Your task to perform on an android device: turn on showing notifications on the lock screen Image 0: 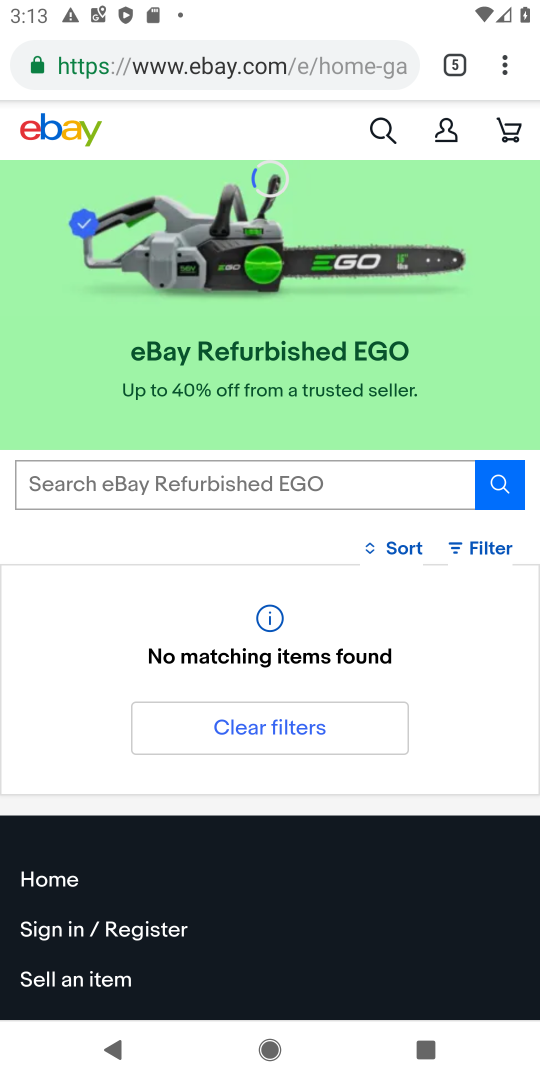
Step 0: press back button
Your task to perform on an android device: turn on showing notifications on the lock screen Image 1: 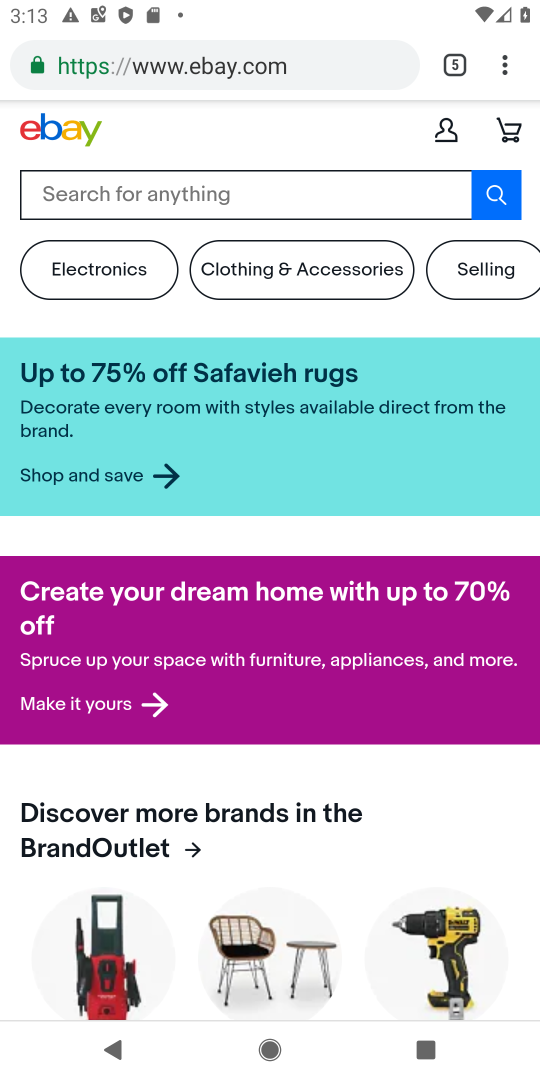
Step 1: press back button
Your task to perform on an android device: turn on showing notifications on the lock screen Image 2: 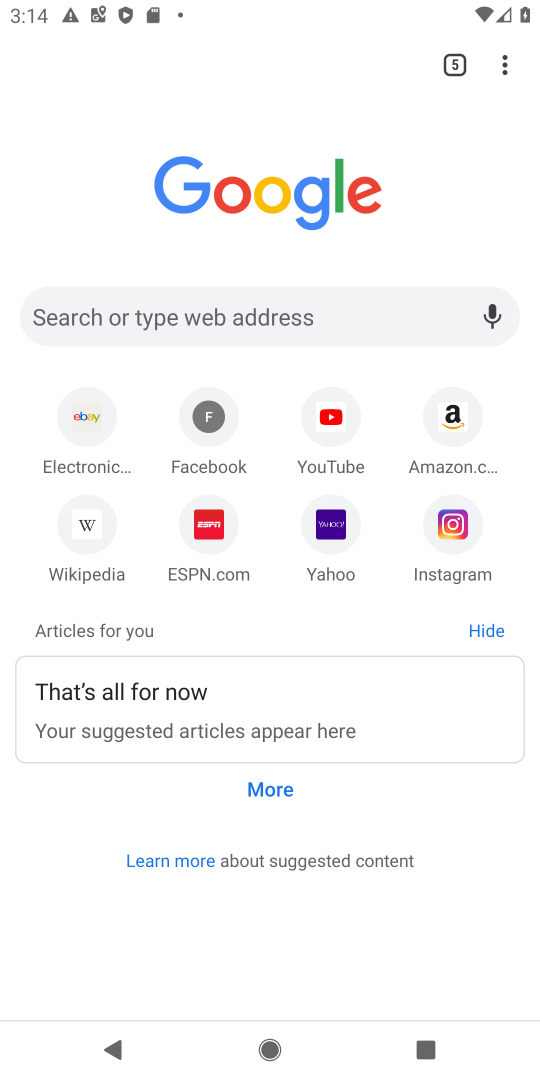
Step 2: press back button
Your task to perform on an android device: turn on showing notifications on the lock screen Image 3: 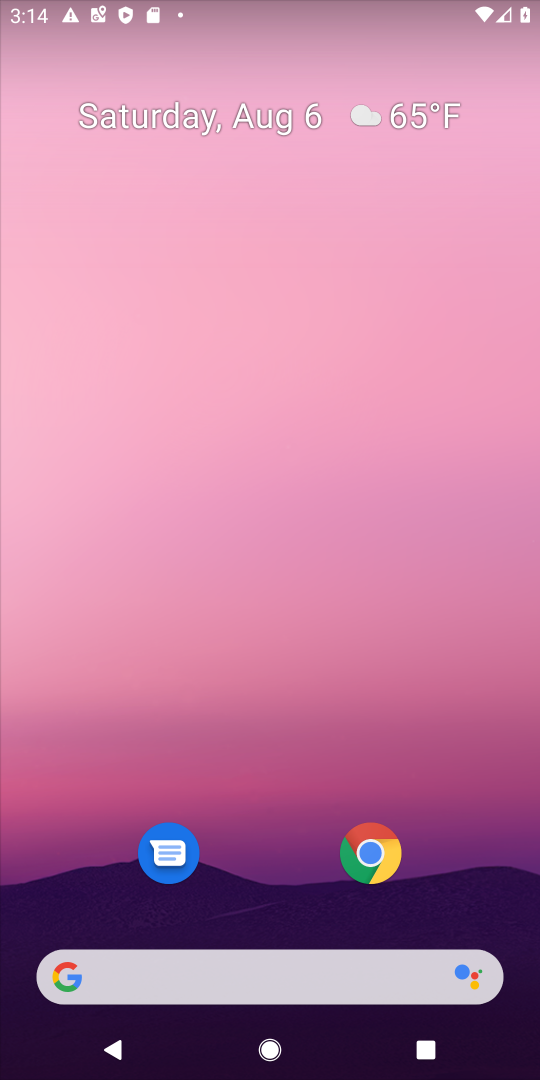
Step 3: drag from (246, 855) to (339, 94)
Your task to perform on an android device: turn on showing notifications on the lock screen Image 4: 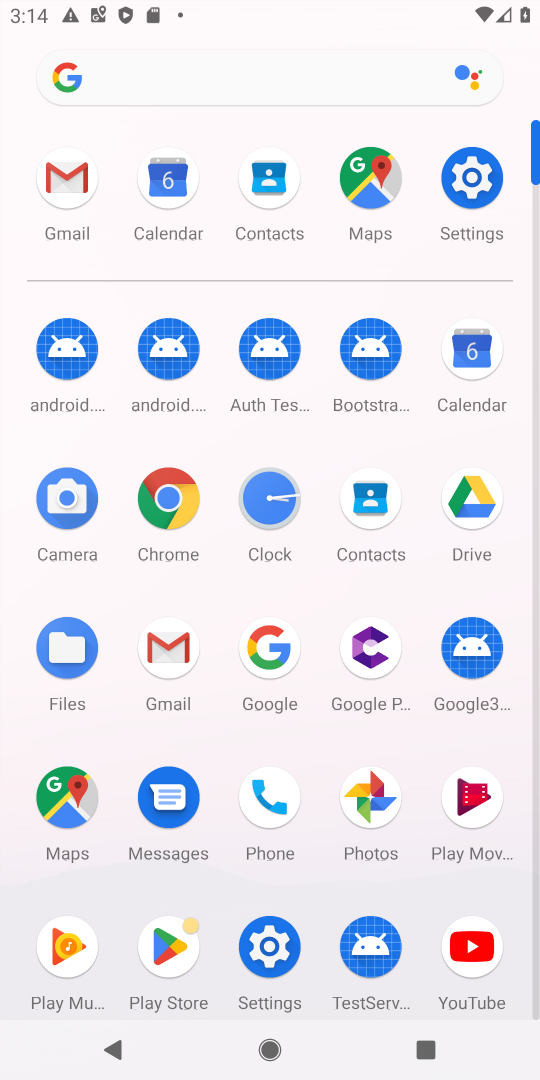
Step 4: click (471, 180)
Your task to perform on an android device: turn on showing notifications on the lock screen Image 5: 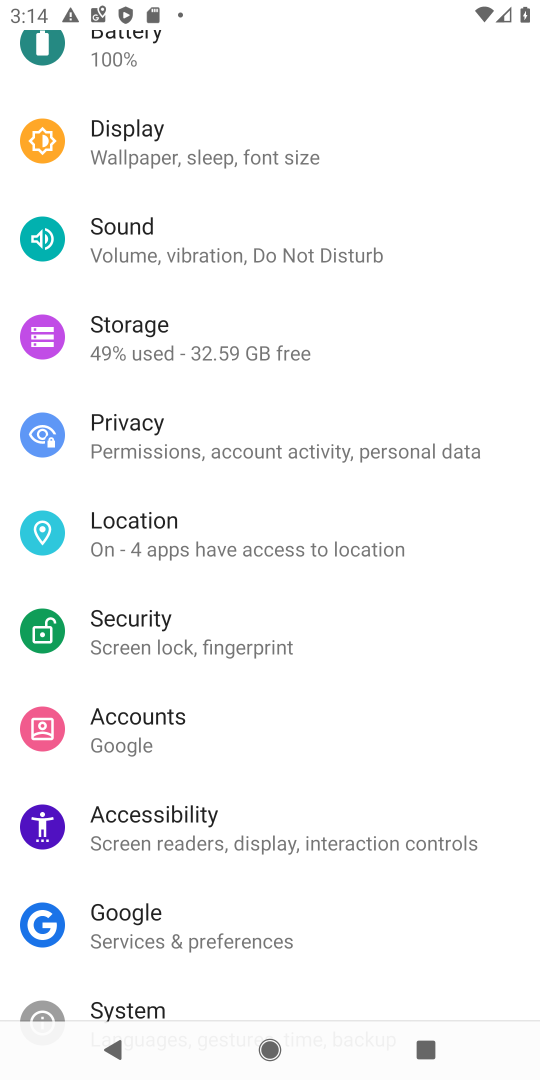
Step 5: drag from (339, 430) to (205, 1067)
Your task to perform on an android device: turn on showing notifications on the lock screen Image 6: 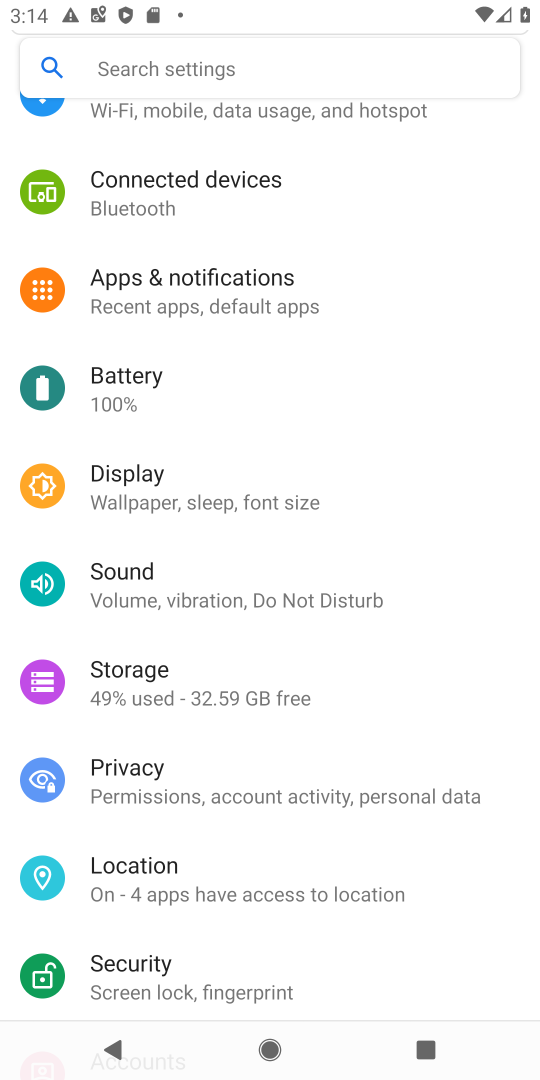
Step 6: click (220, 298)
Your task to perform on an android device: turn on showing notifications on the lock screen Image 7: 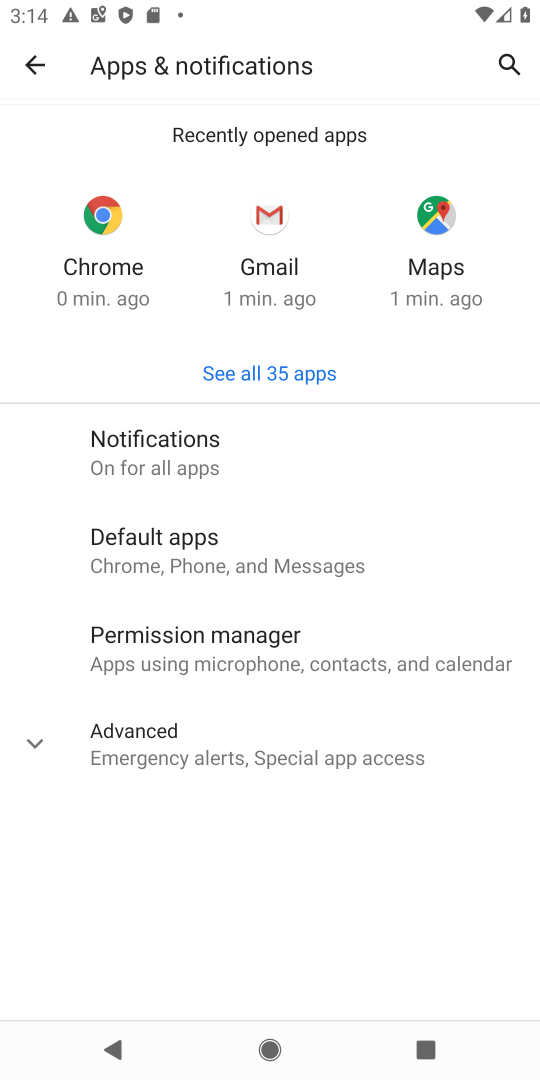
Step 7: click (200, 453)
Your task to perform on an android device: turn on showing notifications on the lock screen Image 8: 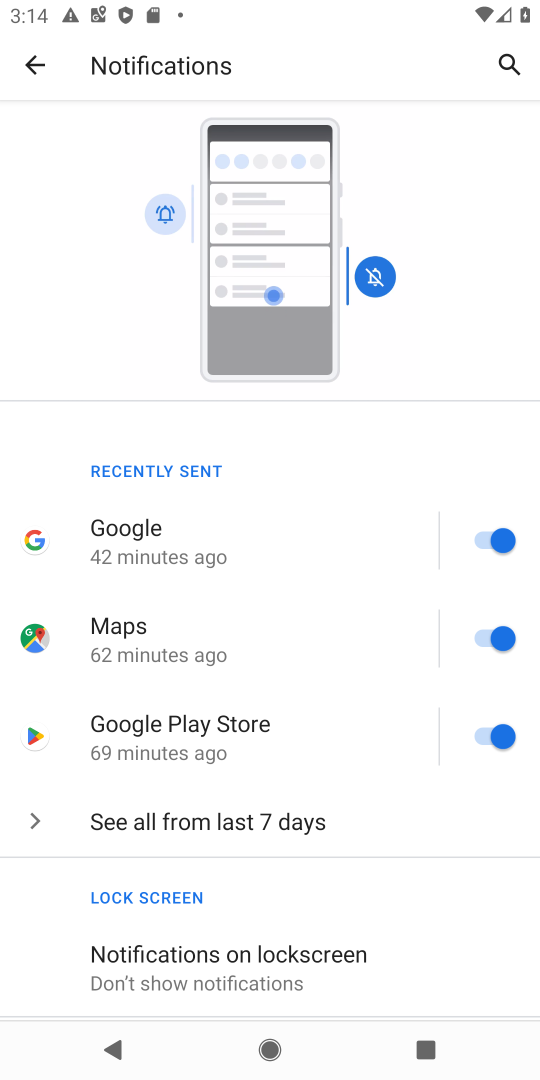
Step 8: click (257, 966)
Your task to perform on an android device: turn on showing notifications on the lock screen Image 9: 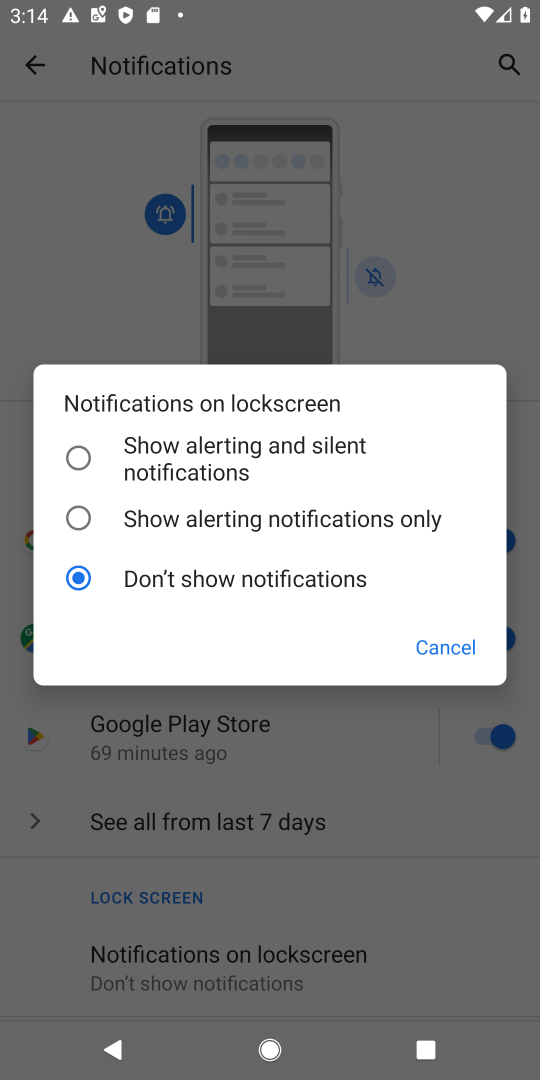
Step 9: click (93, 464)
Your task to perform on an android device: turn on showing notifications on the lock screen Image 10: 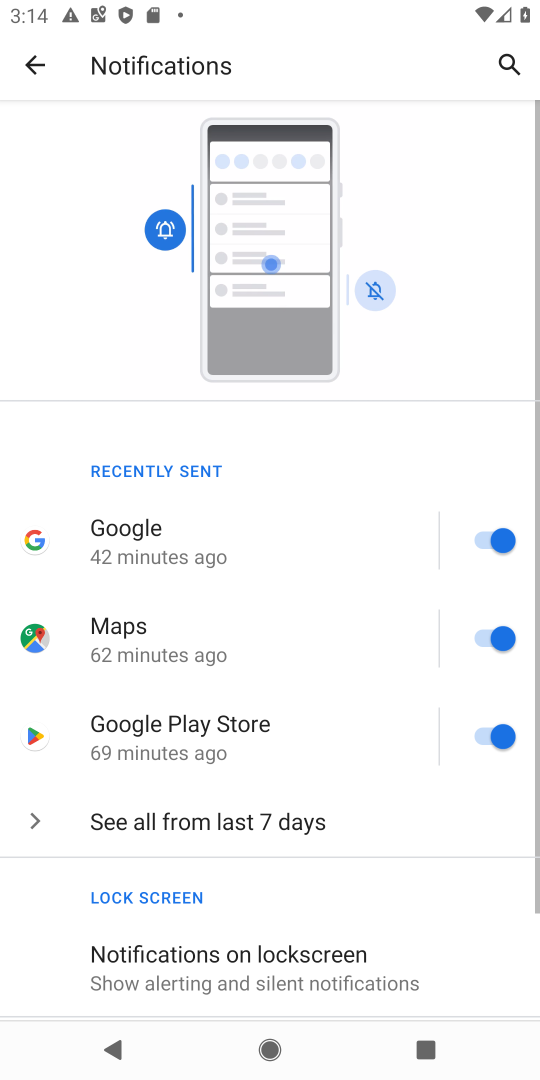
Step 10: task complete